Your task to perform on an android device: Go to settings Image 0: 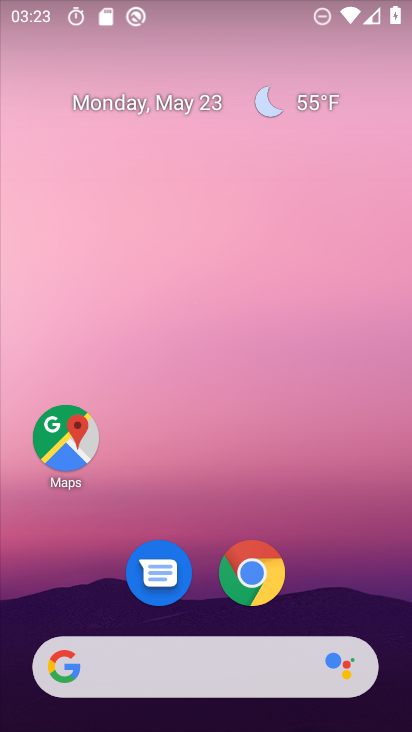
Step 0: drag from (335, 599) to (308, 50)
Your task to perform on an android device: Go to settings Image 1: 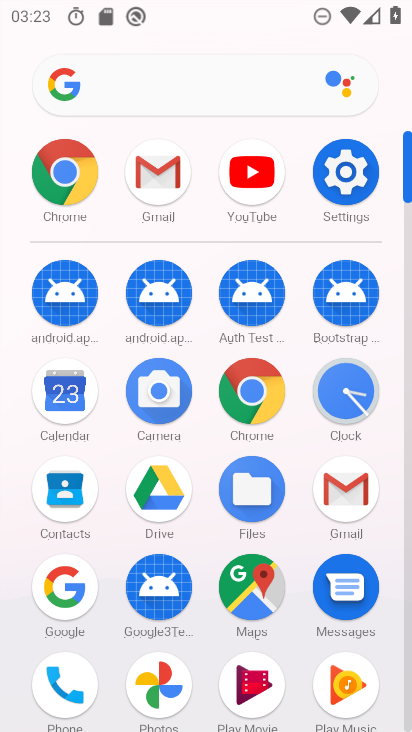
Step 1: click (344, 184)
Your task to perform on an android device: Go to settings Image 2: 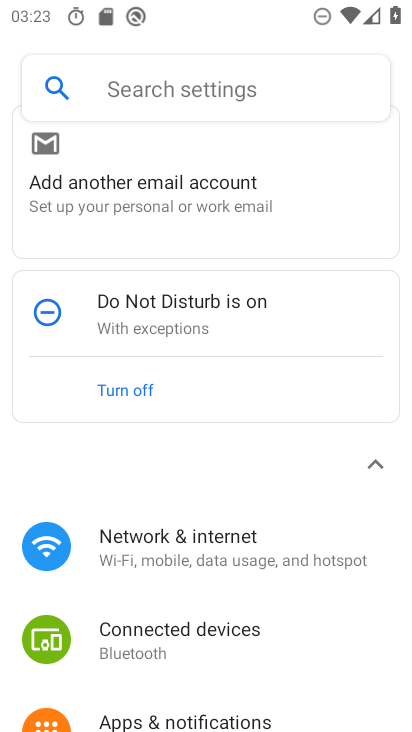
Step 2: task complete